Your task to perform on an android device: add a contact Image 0: 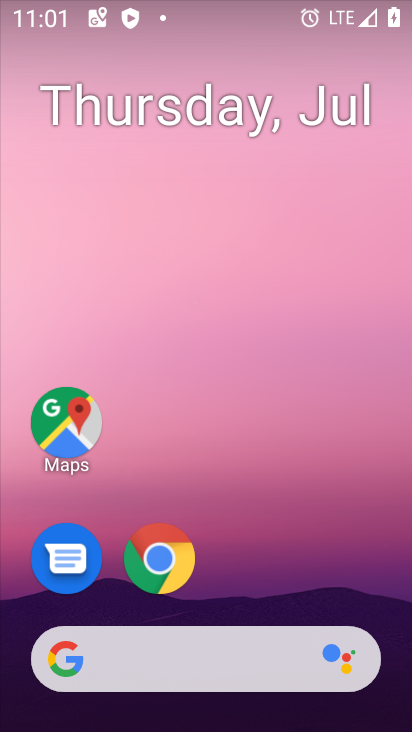
Step 0: drag from (373, 573) to (355, 63)
Your task to perform on an android device: add a contact Image 1: 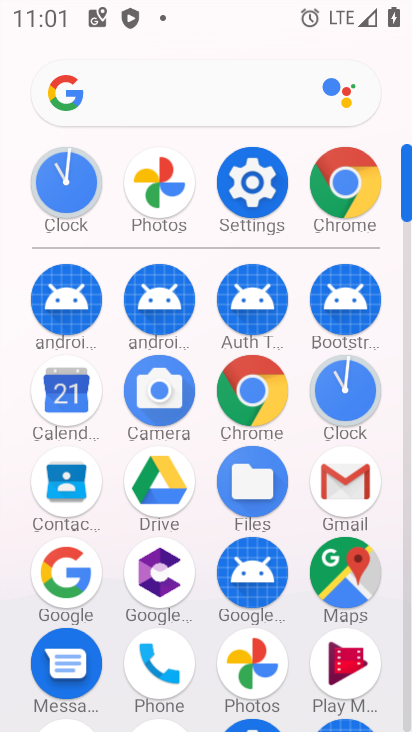
Step 1: click (74, 485)
Your task to perform on an android device: add a contact Image 2: 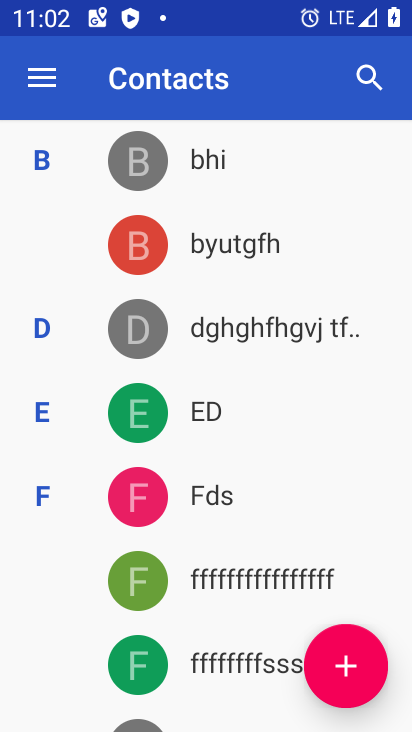
Step 2: click (339, 661)
Your task to perform on an android device: add a contact Image 3: 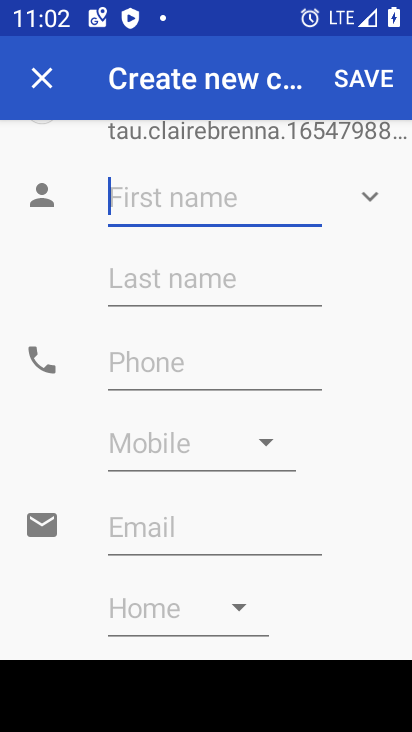
Step 3: type "fav"
Your task to perform on an android device: add a contact Image 4: 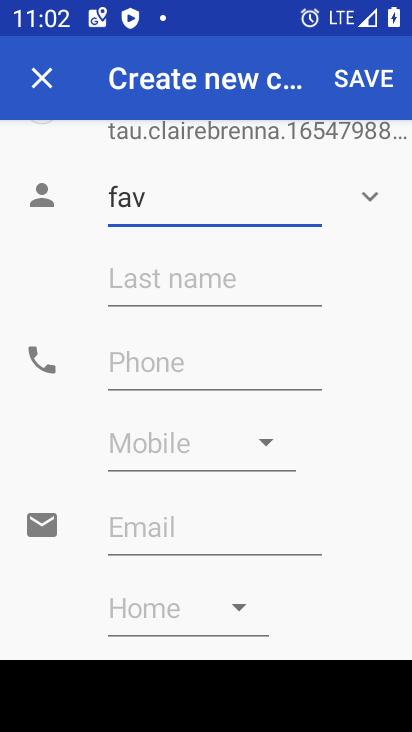
Step 4: click (305, 344)
Your task to perform on an android device: add a contact Image 5: 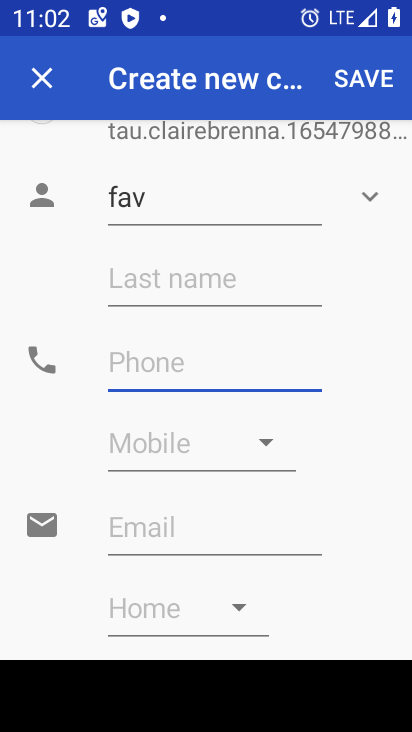
Step 5: type "12345677889"
Your task to perform on an android device: add a contact Image 6: 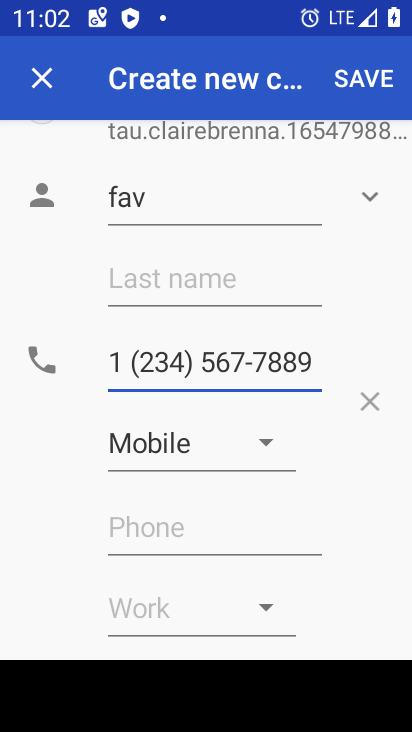
Step 6: click (377, 92)
Your task to perform on an android device: add a contact Image 7: 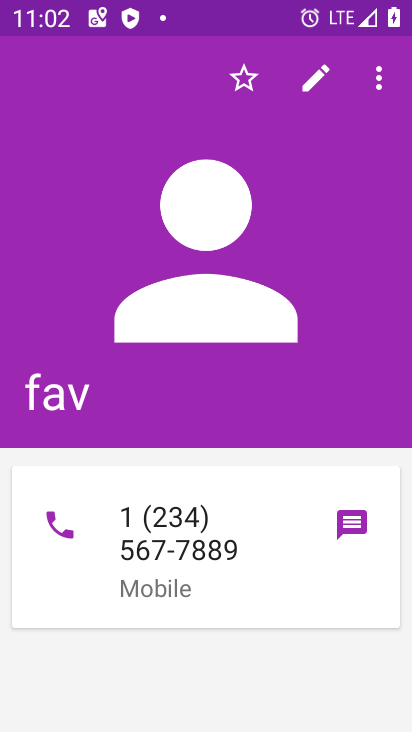
Step 7: task complete